Your task to perform on an android device: move an email to a new category in the gmail app Image 0: 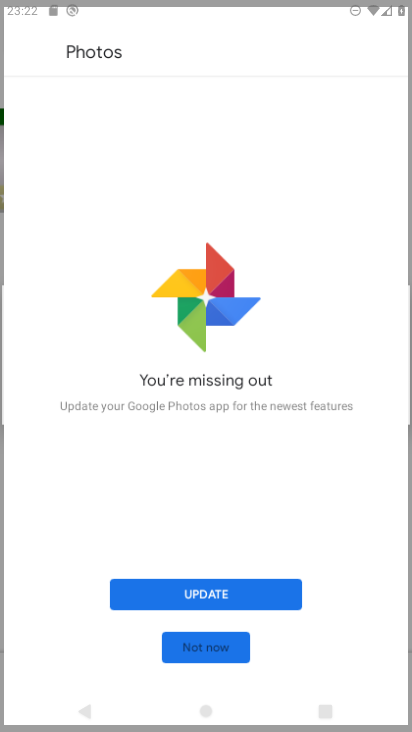
Step 0: press home button
Your task to perform on an android device: move an email to a new category in the gmail app Image 1: 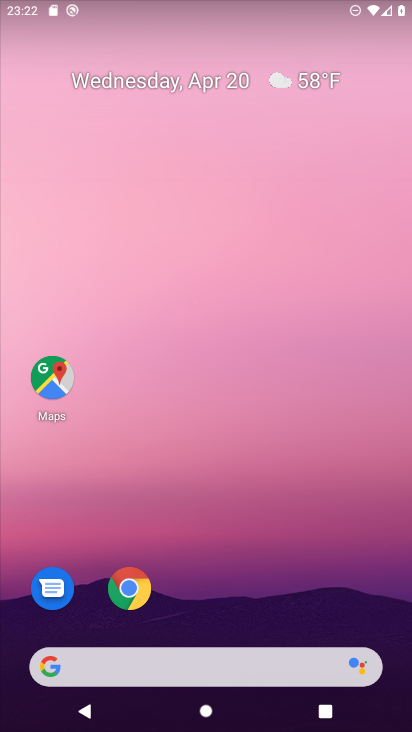
Step 1: drag from (215, 725) to (221, 84)
Your task to perform on an android device: move an email to a new category in the gmail app Image 2: 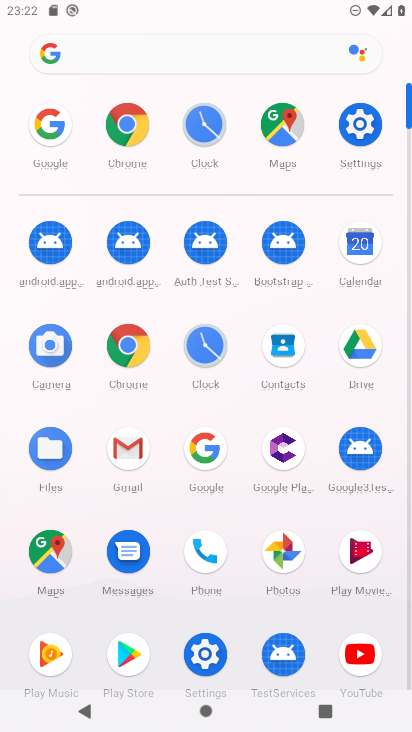
Step 2: click (127, 447)
Your task to perform on an android device: move an email to a new category in the gmail app Image 3: 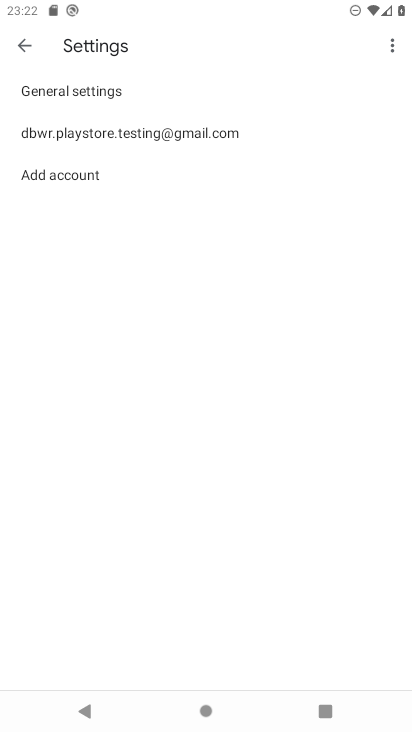
Step 3: click (23, 41)
Your task to perform on an android device: move an email to a new category in the gmail app Image 4: 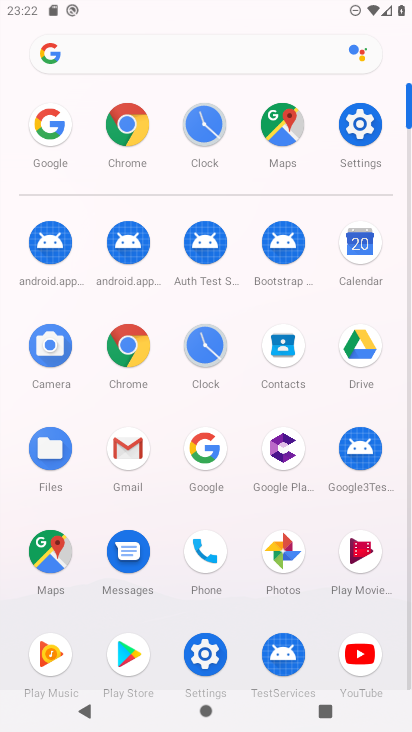
Step 4: click (124, 450)
Your task to perform on an android device: move an email to a new category in the gmail app Image 5: 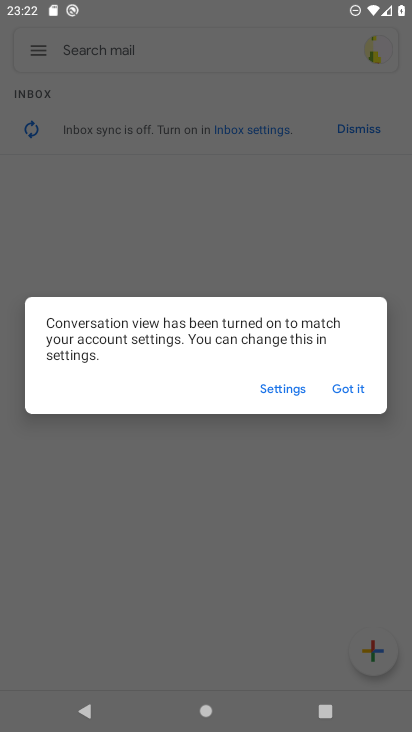
Step 5: click (346, 383)
Your task to perform on an android device: move an email to a new category in the gmail app Image 6: 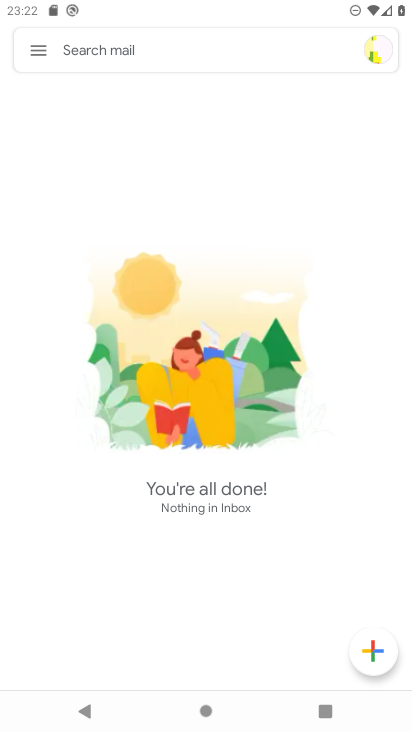
Step 6: task complete